Your task to perform on an android device: Open settings Image 0: 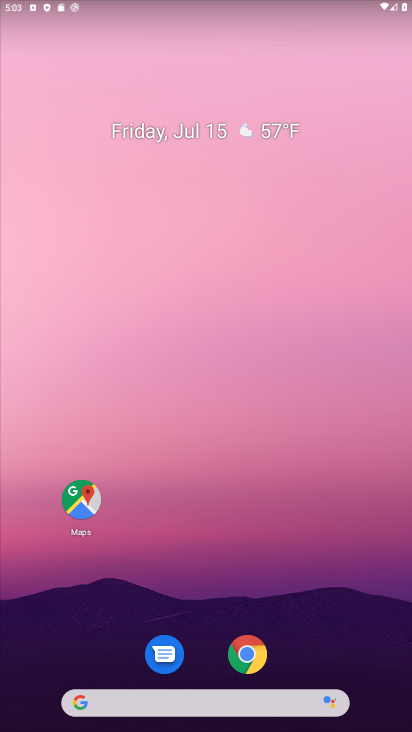
Step 0: drag from (215, 652) to (203, 117)
Your task to perform on an android device: Open settings Image 1: 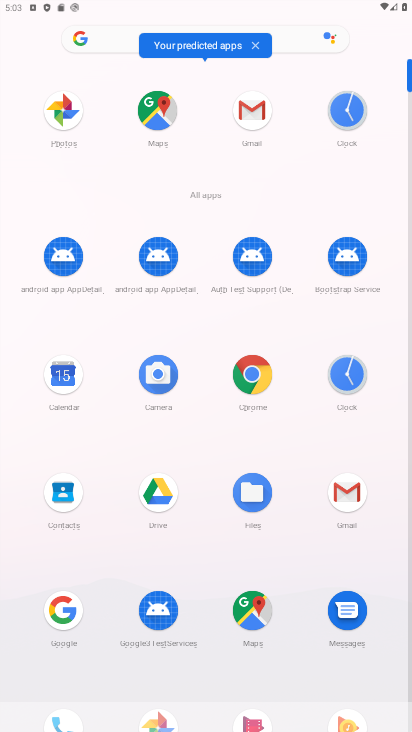
Step 1: drag from (202, 641) to (211, 238)
Your task to perform on an android device: Open settings Image 2: 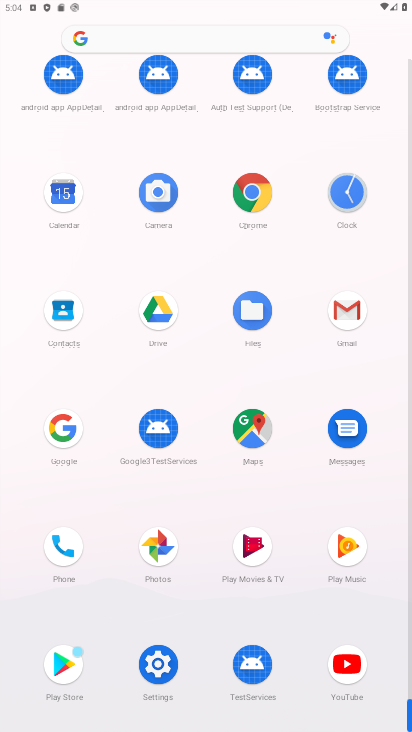
Step 2: click (156, 673)
Your task to perform on an android device: Open settings Image 3: 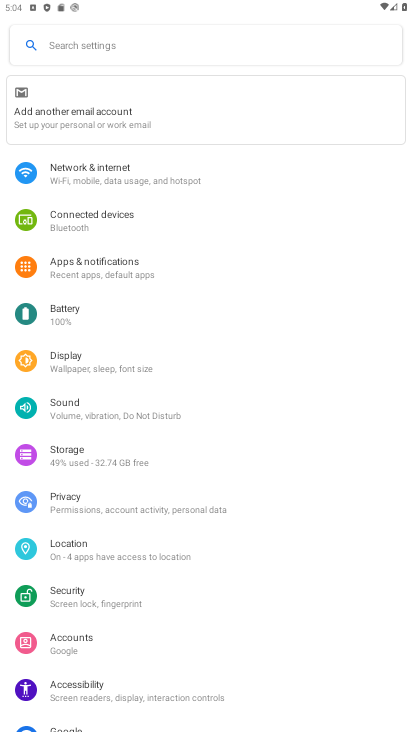
Step 3: task complete